Your task to perform on an android device: refresh tabs in the chrome app Image 0: 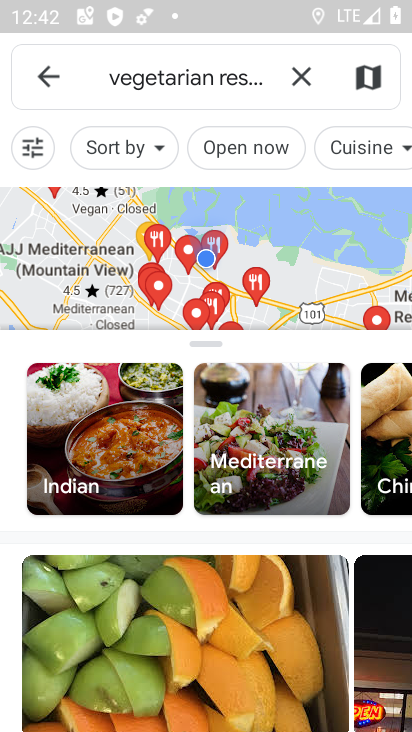
Step 0: press home button
Your task to perform on an android device: refresh tabs in the chrome app Image 1: 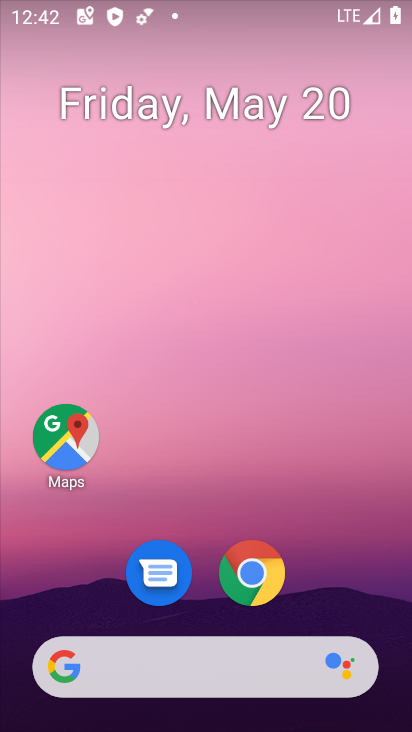
Step 1: click (257, 552)
Your task to perform on an android device: refresh tabs in the chrome app Image 2: 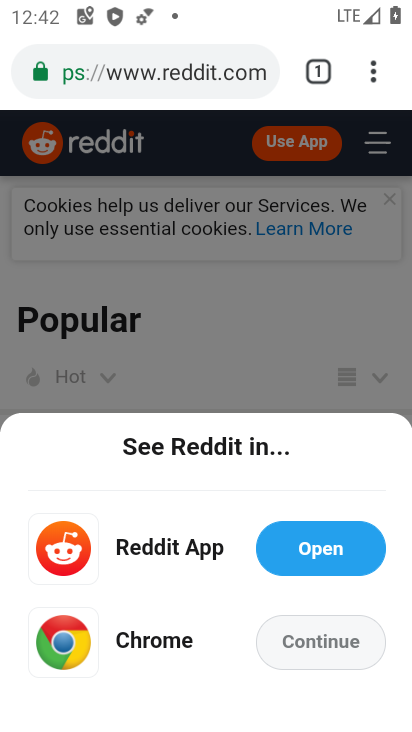
Step 2: click (377, 79)
Your task to perform on an android device: refresh tabs in the chrome app Image 3: 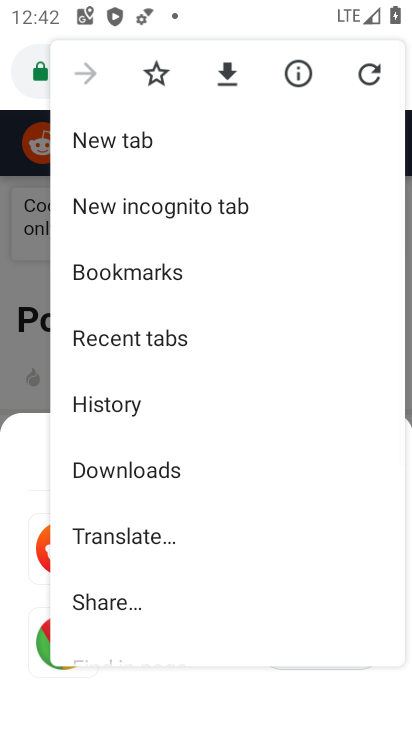
Step 3: click (357, 68)
Your task to perform on an android device: refresh tabs in the chrome app Image 4: 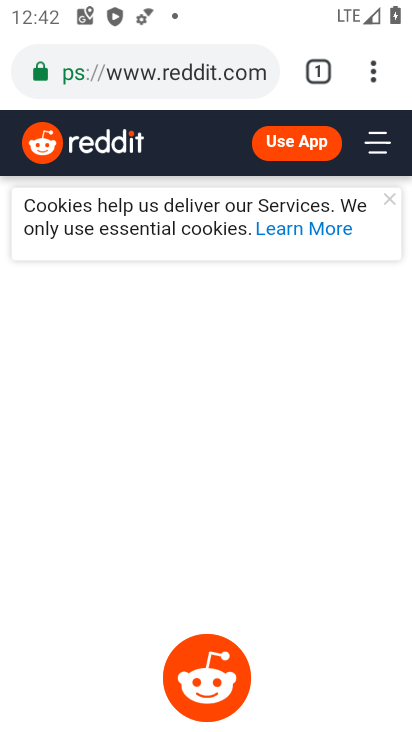
Step 4: task complete